Your task to perform on an android device: Go to settings Image 0: 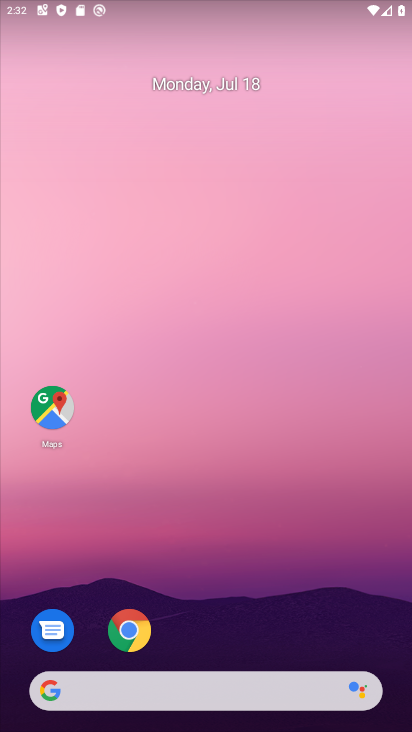
Step 0: drag from (339, 633) to (256, 152)
Your task to perform on an android device: Go to settings Image 1: 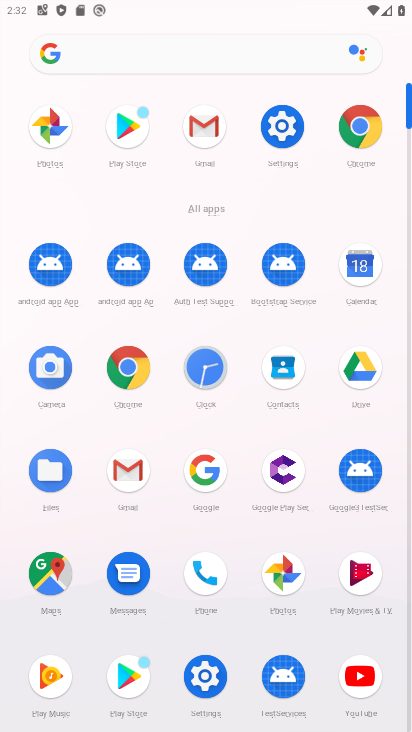
Step 1: click (202, 680)
Your task to perform on an android device: Go to settings Image 2: 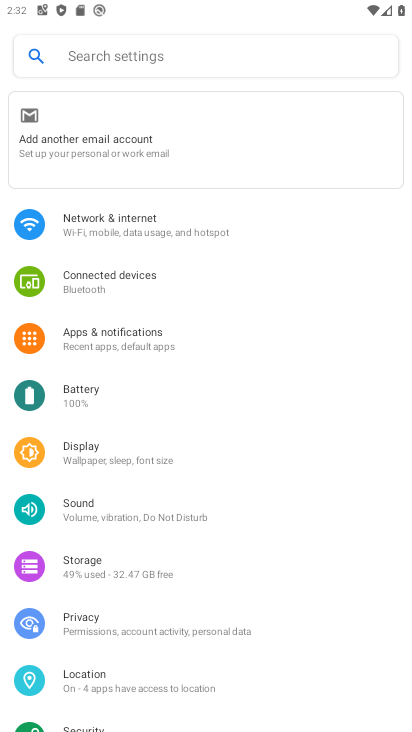
Step 2: task complete